Your task to perform on an android device: check google app version Image 0: 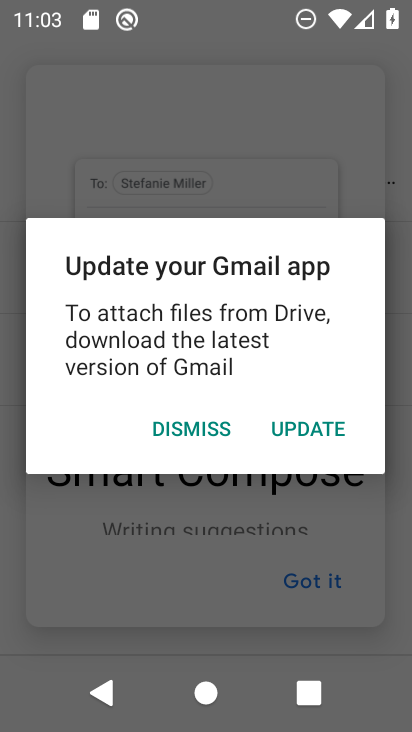
Step 0: press home button
Your task to perform on an android device: check google app version Image 1: 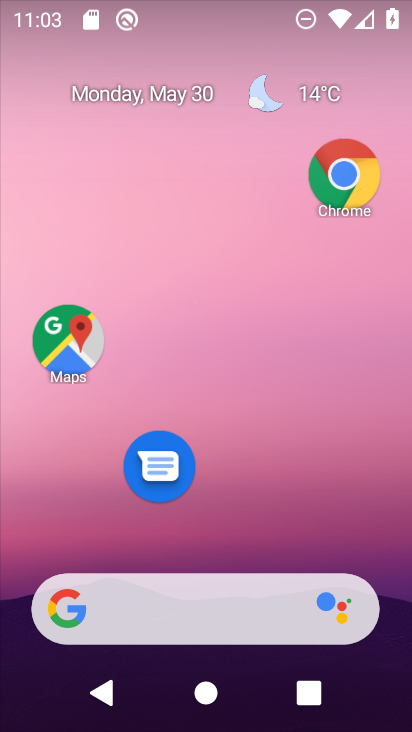
Step 1: drag from (315, 539) to (195, 131)
Your task to perform on an android device: check google app version Image 2: 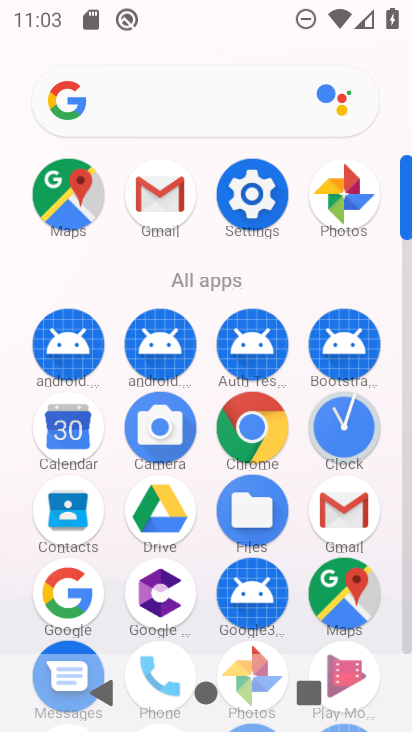
Step 2: click (163, 115)
Your task to perform on an android device: check google app version Image 3: 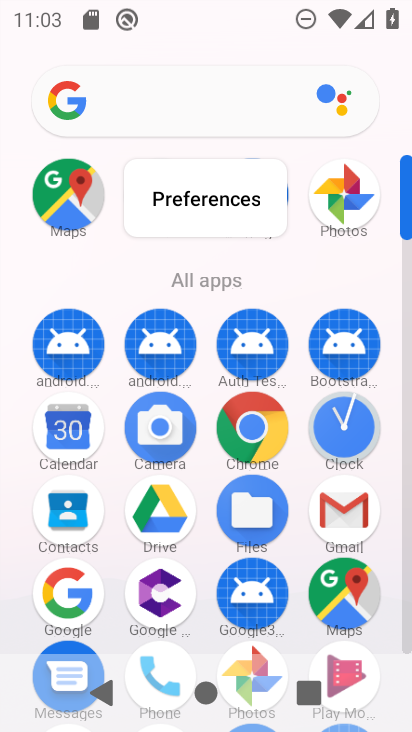
Step 3: click (163, 115)
Your task to perform on an android device: check google app version Image 4: 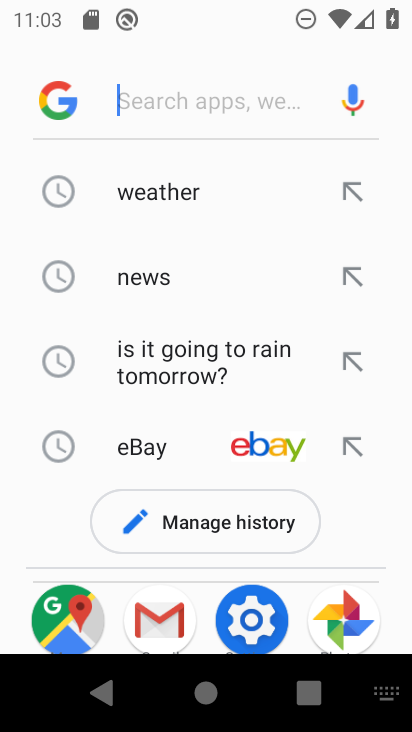
Step 4: click (42, 89)
Your task to perform on an android device: check google app version Image 5: 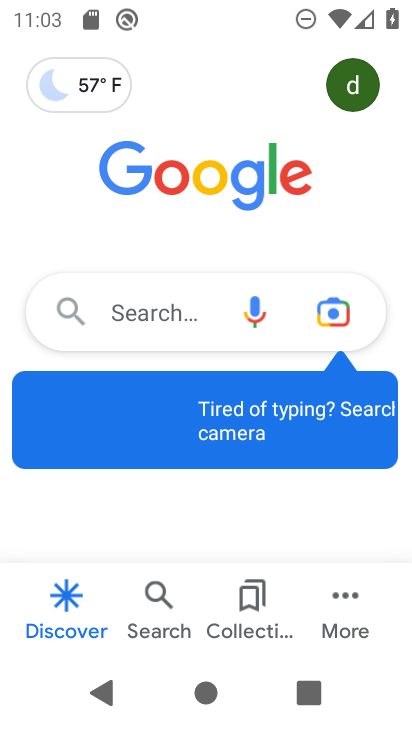
Step 5: click (314, 609)
Your task to perform on an android device: check google app version Image 6: 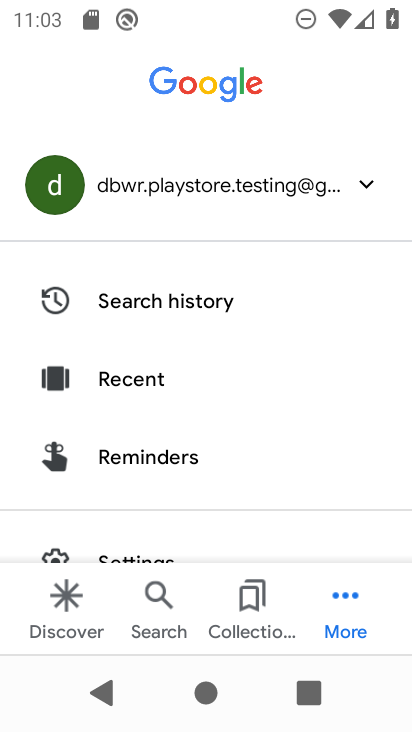
Step 6: drag from (242, 404) to (209, 113)
Your task to perform on an android device: check google app version Image 7: 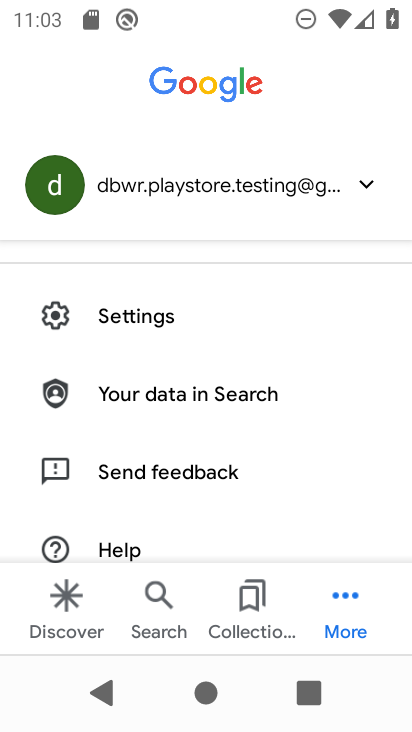
Step 7: click (182, 323)
Your task to perform on an android device: check google app version Image 8: 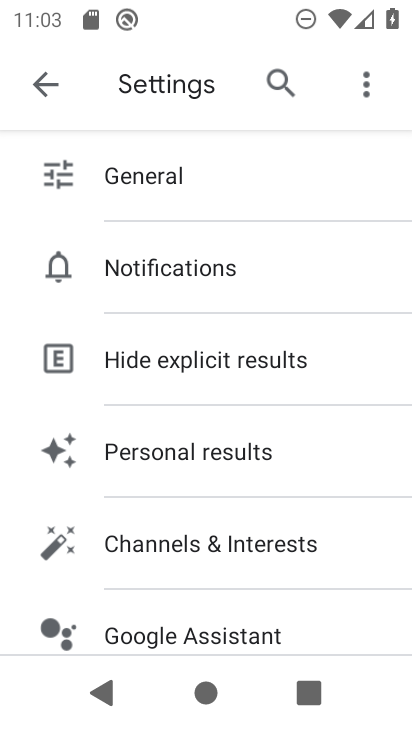
Step 8: drag from (208, 165) to (310, 491)
Your task to perform on an android device: check google app version Image 9: 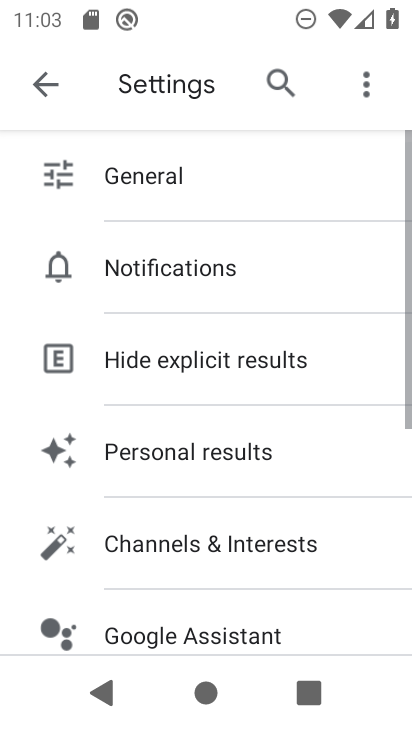
Step 9: drag from (296, 516) to (230, 144)
Your task to perform on an android device: check google app version Image 10: 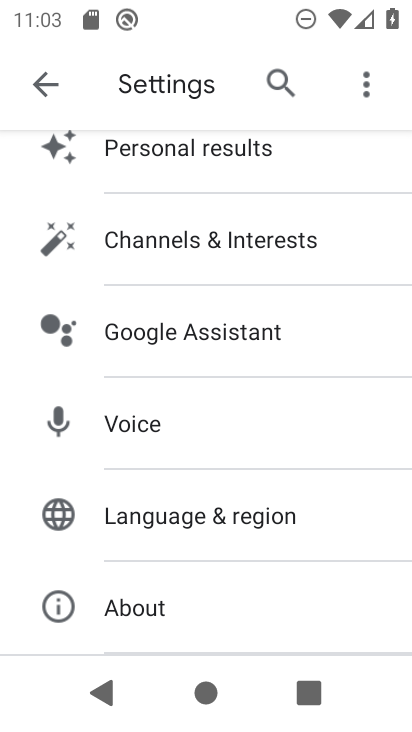
Step 10: drag from (191, 478) to (130, 107)
Your task to perform on an android device: check google app version Image 11: 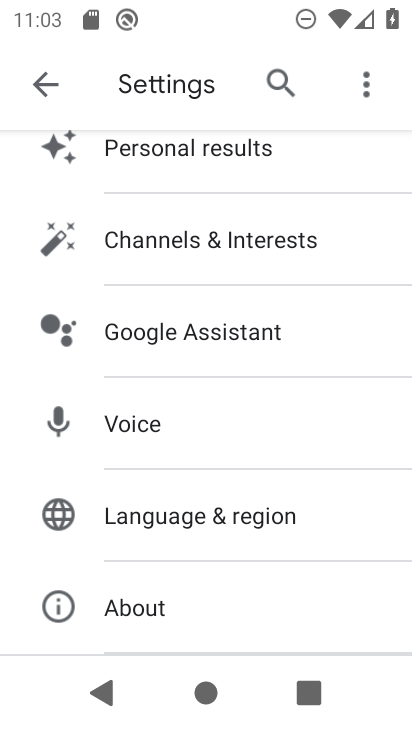
Step 11: click (174, 590)
Your task to perform on an android device: check google app version Image 12: 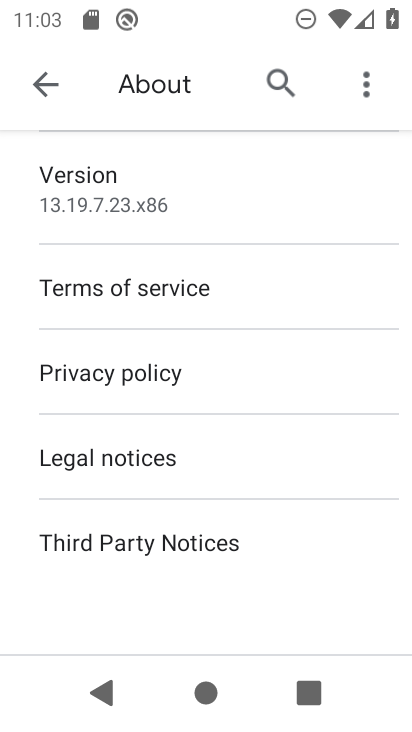
Step 12: click (79, 204)
Your task to perform on an android device: check google app version Image 13: 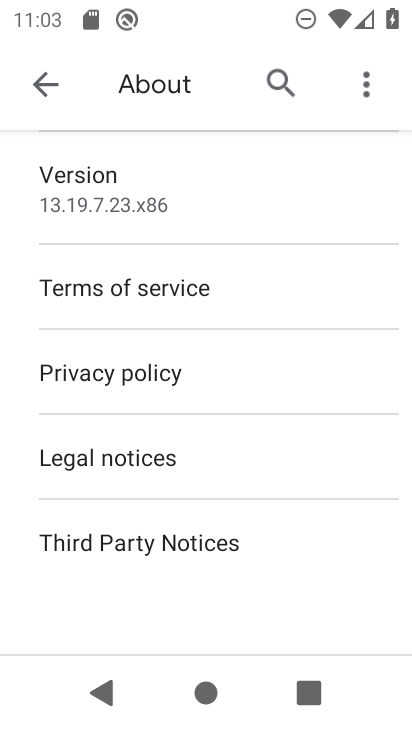
Step 13: task complete